Your task to perform on an android device: move an email to a new category in the gmail app Image 0: 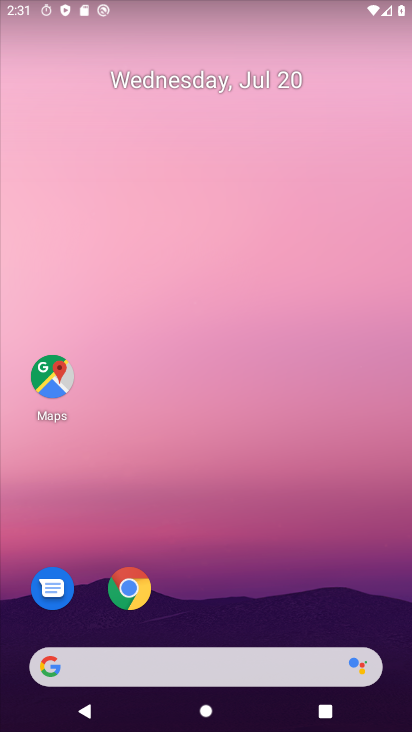
Step 0: drag from (193, 623) to (235, 126)
Your task to perform on an android device: move an email to a new category in the gmail app Image 1: 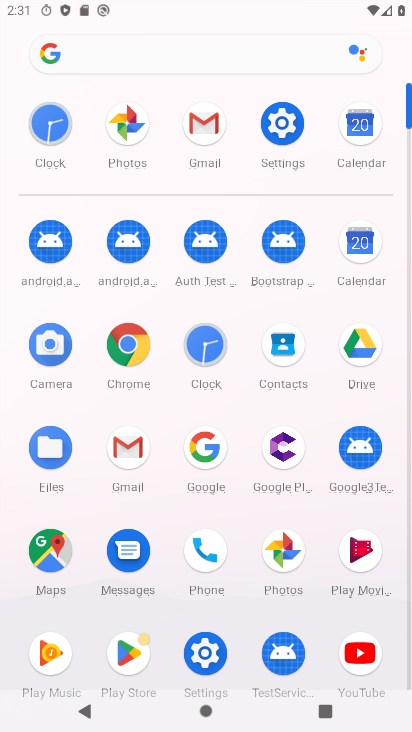
Step 1: click (117, 447)
Your task to perform on an android device: move an email to a new category in the gmail app Image 2: 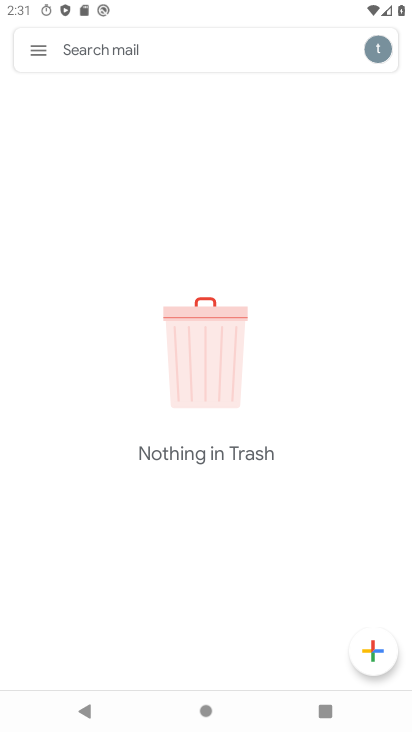
Step 2: click (15, 48)
Your task to perform on an android device: move an email to a new category in the gmail app Image 3: 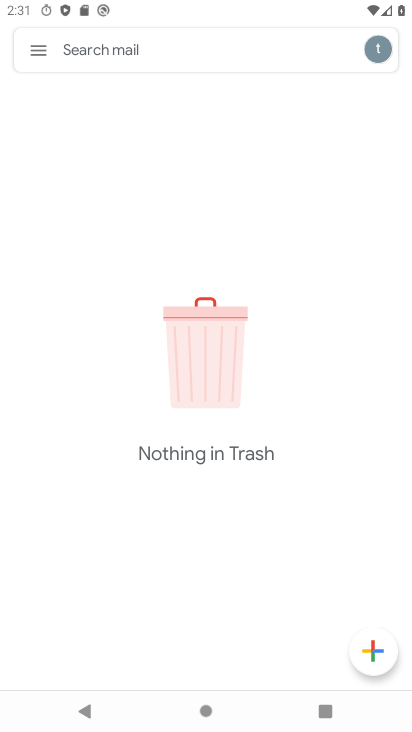
Step 3: click (39, 40)
Your task to perform on an android device: move an email to a new category in the gmail app Image 4: 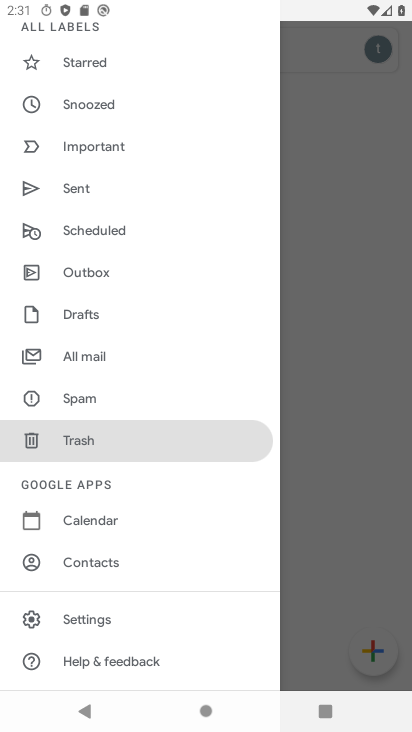
Step 4: drag from (48, 85) to (88, 447)
Your task to perform on an android device: move an email to a new category in the gmail app Image 5: 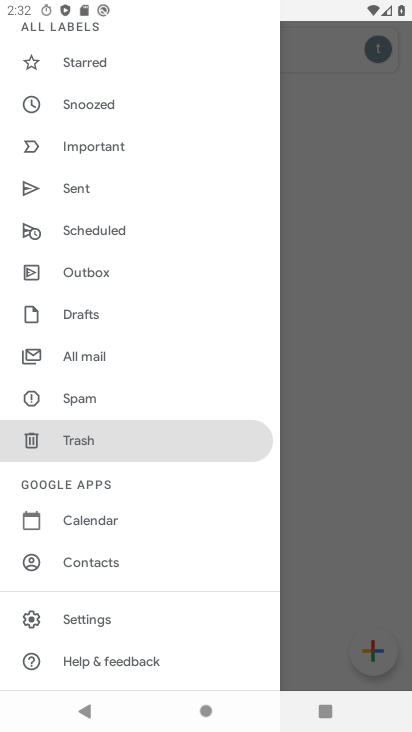
Step 5: click (318, 395)
Your task to perform on an android device: move an email to a new category in the gmail app Image 6: 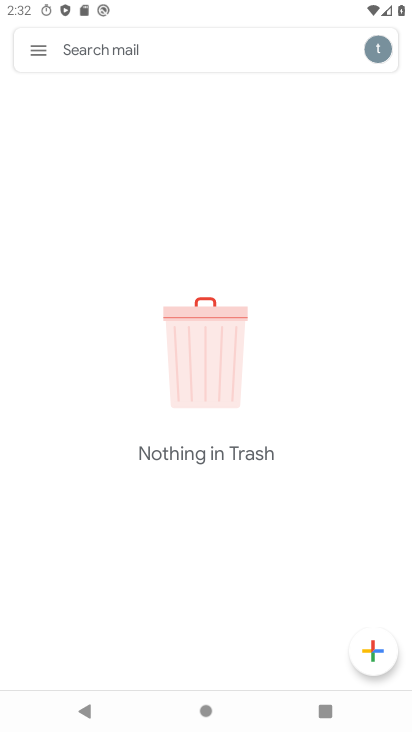
Step 6: task complete